Your task to perform on an android device: turn on wifi Image 0: 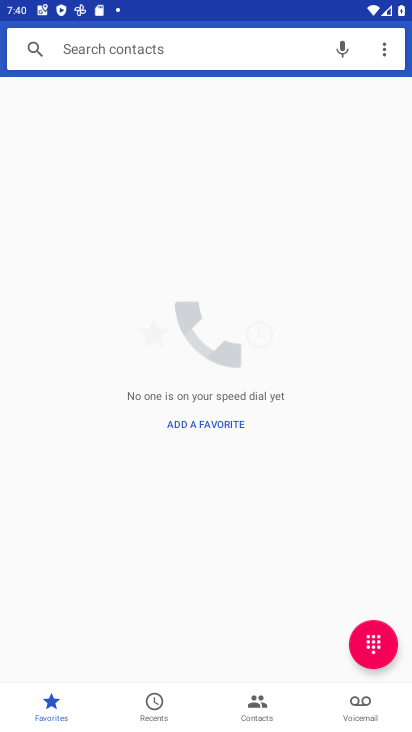
Step 0: press home button
Your task to perform on an android device: turn on wifi Image 1: 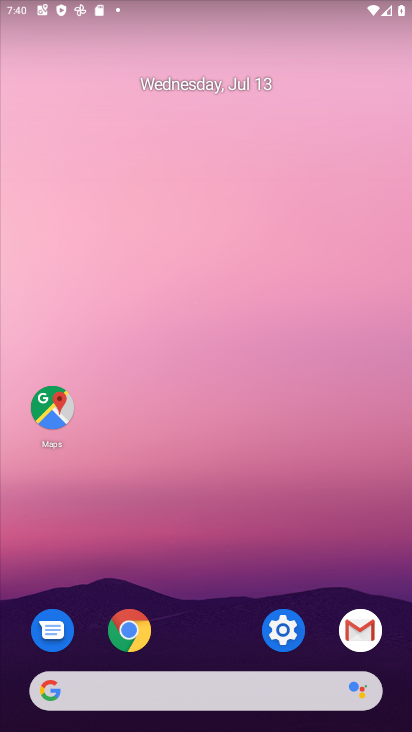
Step 1: click (301, 625)
Your task to perform on an android device: turn on wifi Image 2: 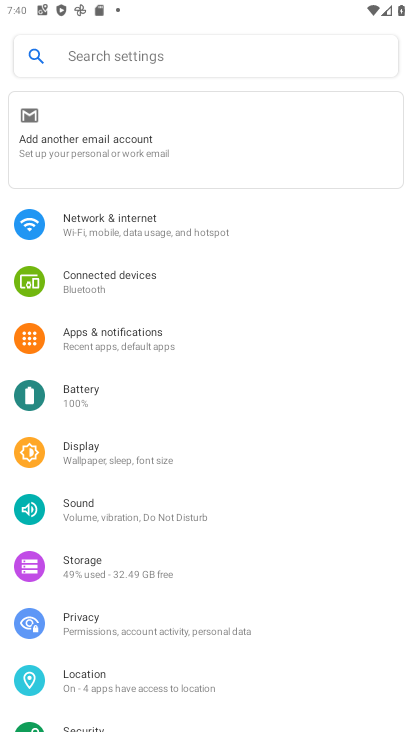
Step 2: click (133, 237)
Your task to perform on an android device: turn on wifi Image 3: 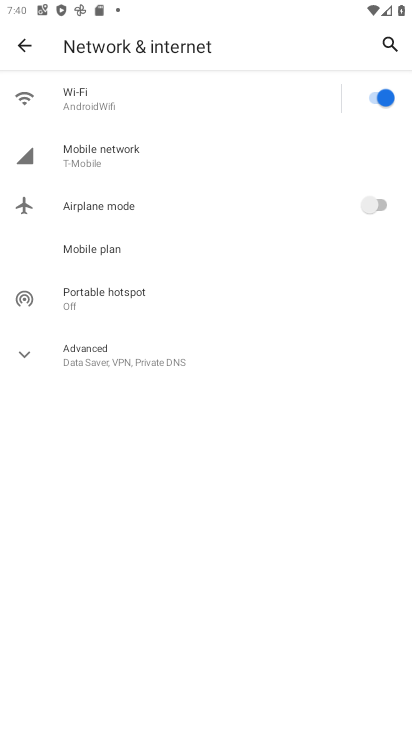
Step 3: click (111, 118)
Your task to perform on an android device: turn on wifi Image 4: 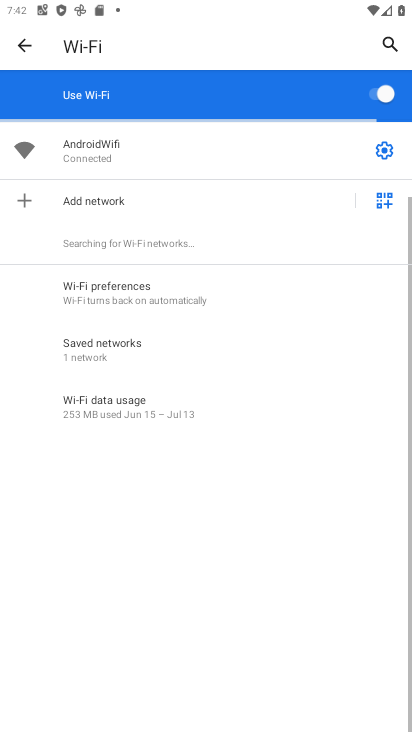
Step 4: task complete